Your task to perform on an android device: Open display settings Image 0: 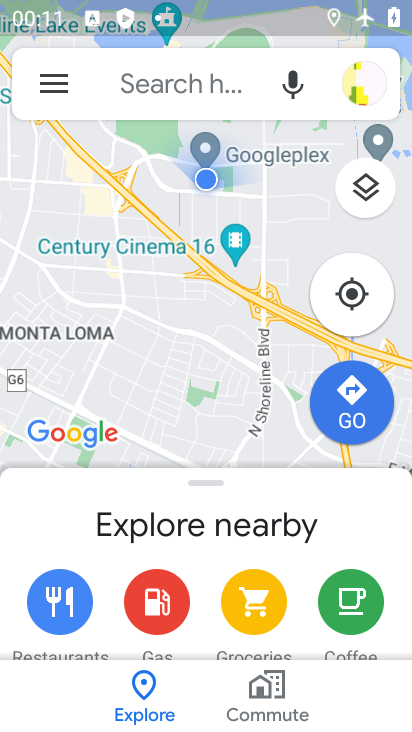
Step 0: click (364, 479)
Your task to perform on an android device: Open display settings Image 1: 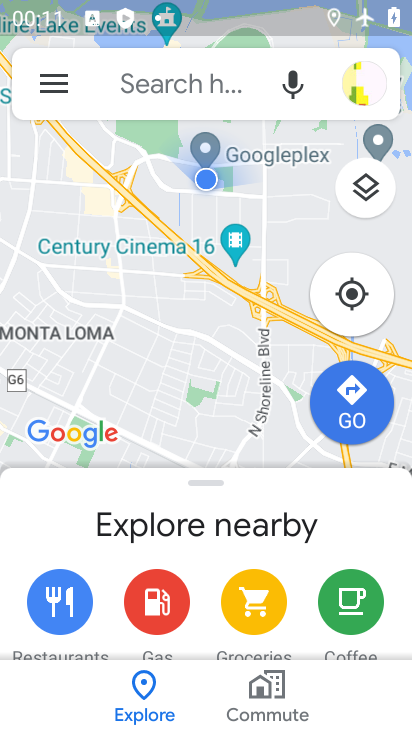
Step 1: press home button
Your task to perform on an android device: Open display settings Image 2: 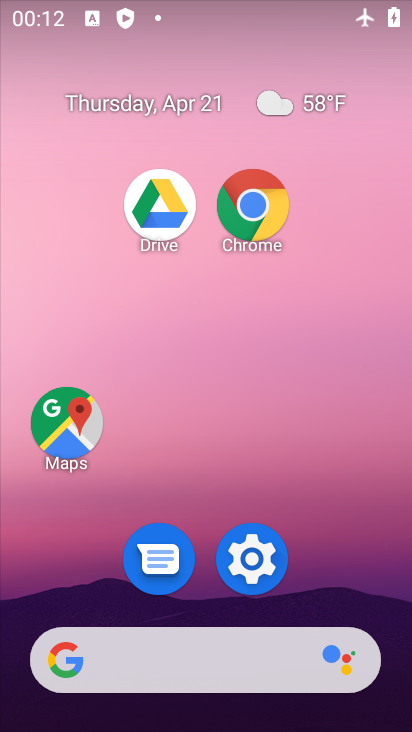
Step 2: drag from (343, 544) to (171, 49)
Your task to perform on an android device: Open display settings Image 3: 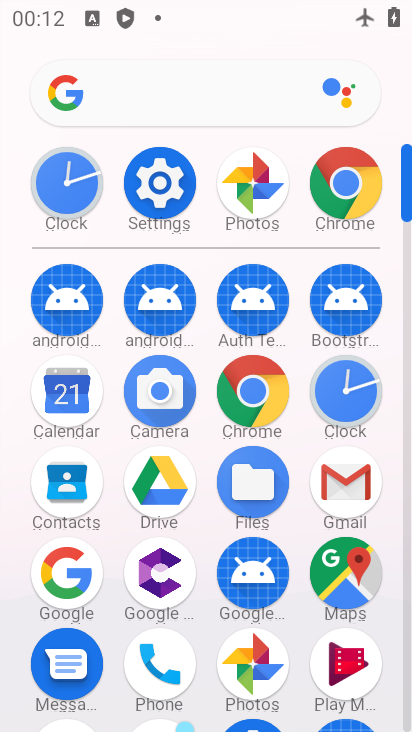
Step 3: click (167, 235)
Your task to perform on an android device: Open display settings Image 4: 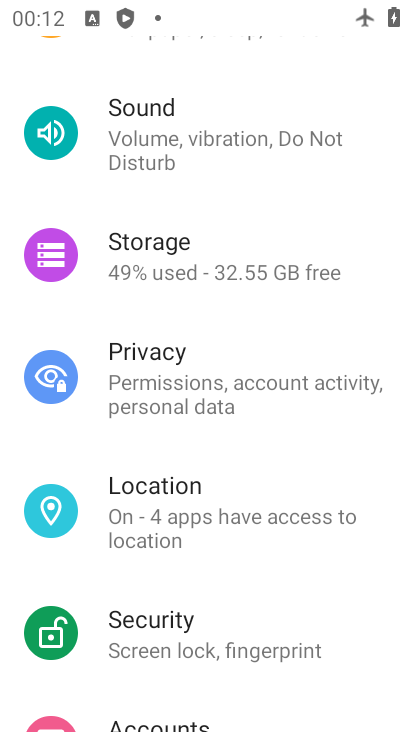
Step 4: drag from (280, 625) to (269, 212)
Your task to perform on an android device: Open display settings Image 5: 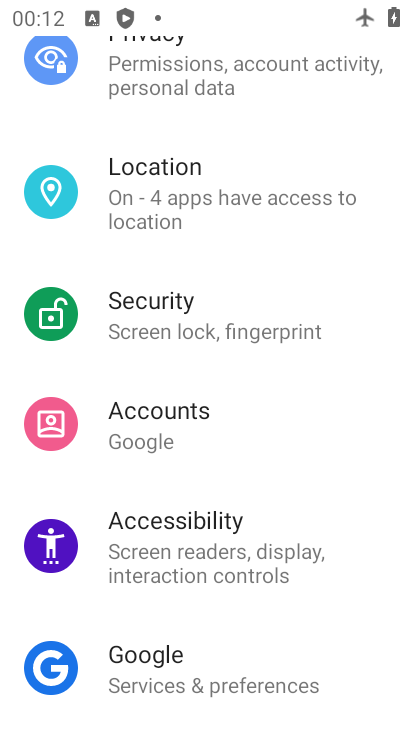
Step 5: drag from (269, 212) to (411, 410)
Your task to perform on an android device: Open display settings Image 6: 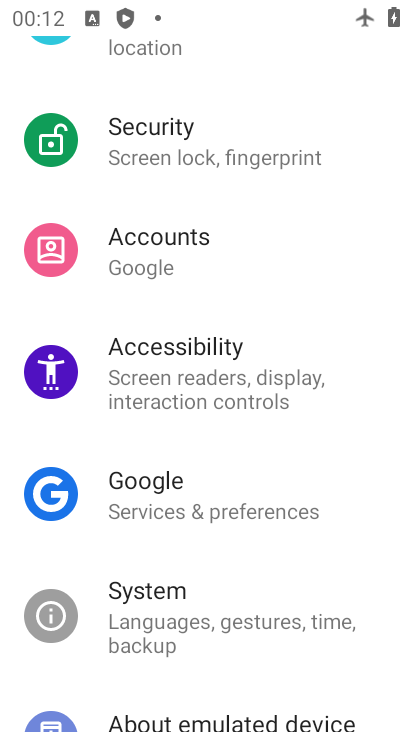
Step 6: drag from (290, 154) to (288, 379)
Your task to perform on an android device: Open display settings Image 7: 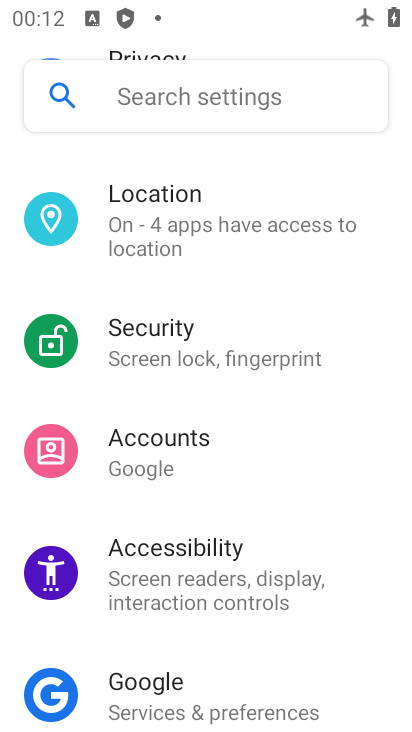
Step 7: drag from (294, 214) to (286, 648)
Your task to perform on an android device: Open display settings Image 8: 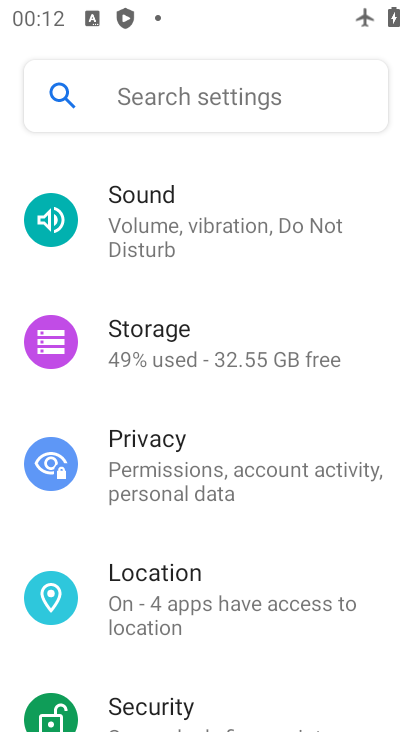
Step 8: drag from (264, 251) to (258, 638)
Your task to perform on an android device: Open display settings Image 9: 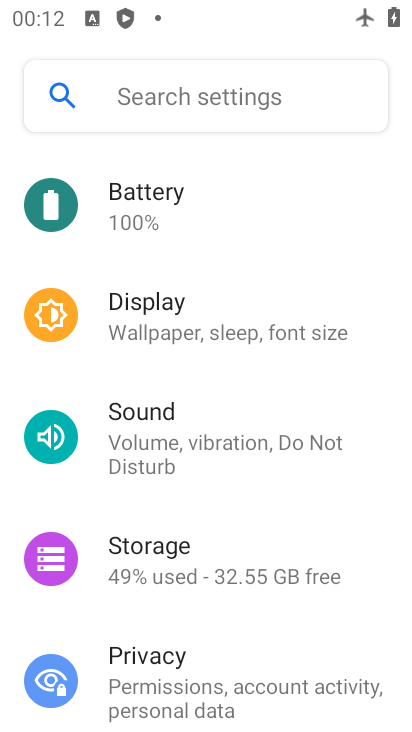
Step 9: click (184, 281)
Your task to perform on an android device: Open display settings Image 10: 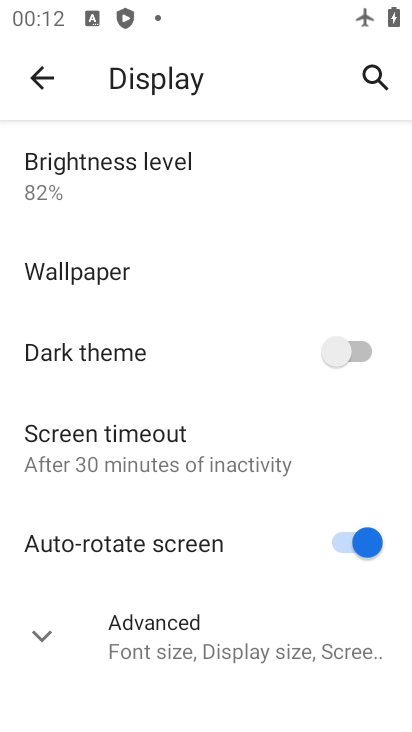
Step 10: click (173, 310)
Your task to perform on an android device: Open display settings Image 11: 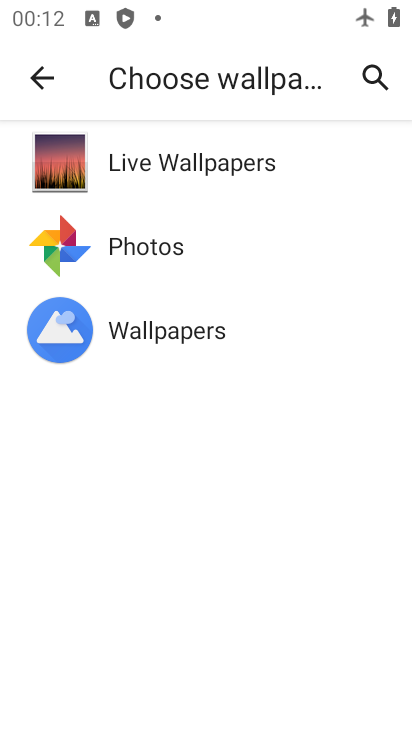
Step 11: task complete